Your task to perform on an android device: turn notification dots on Image 0: 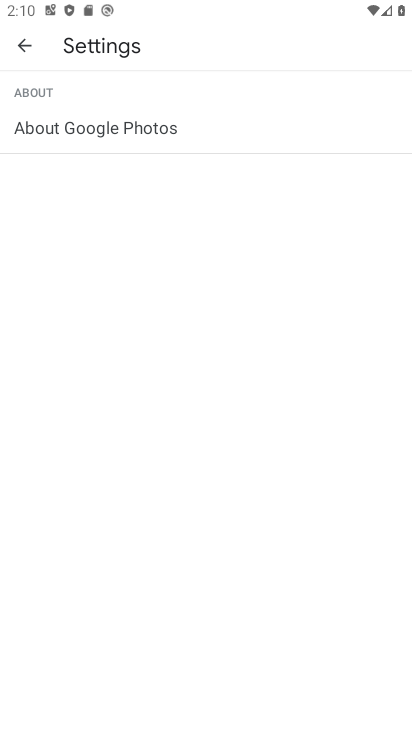
Step 0: press home button
Your task to perform on an android device: turn notification dots on Image 1: 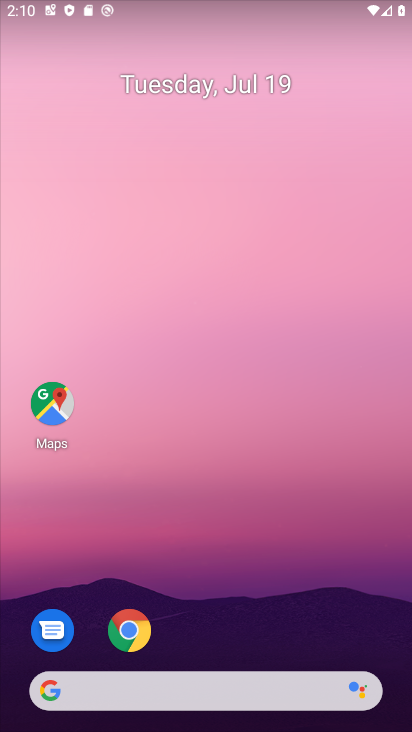
Step 1: drag from (386, 643) to (325, 34)
Your task to perform on an android device: turn notification dots on Image 2: 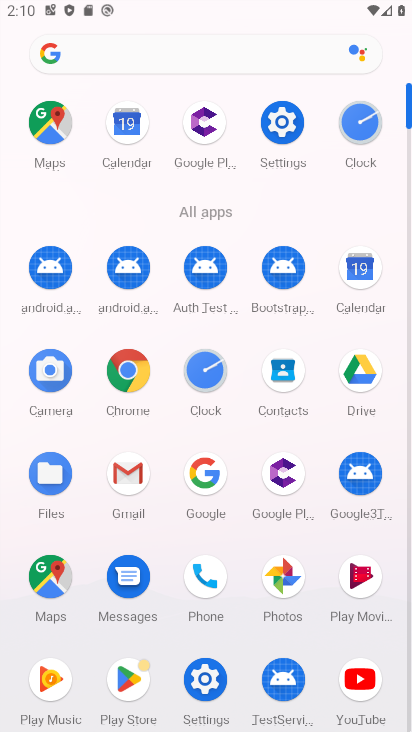
Step 2: click (205, 680)
Your task to perform on an android device: turn notification dots on Image 3: 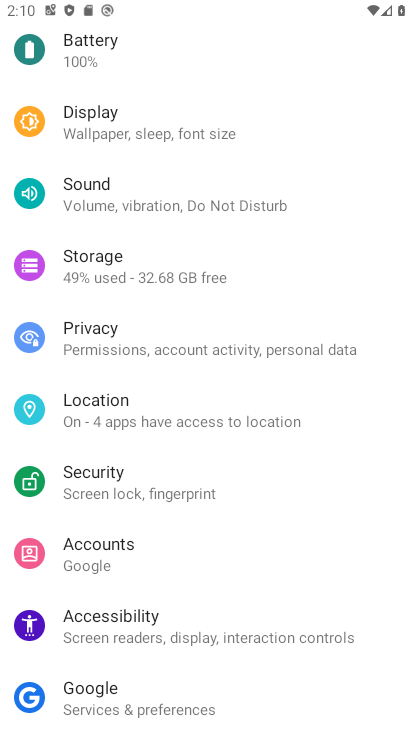
Step 3: drag from (212, 192) to (215, 551)
Your task to perform on an android device: turn notification dots on Image 4: 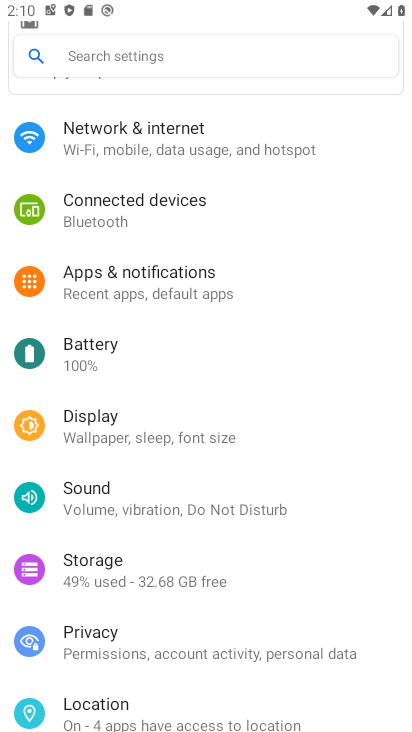
Step 4: click (117, 280)
Your task to perform on an android device: turn notification dots on Image 5: 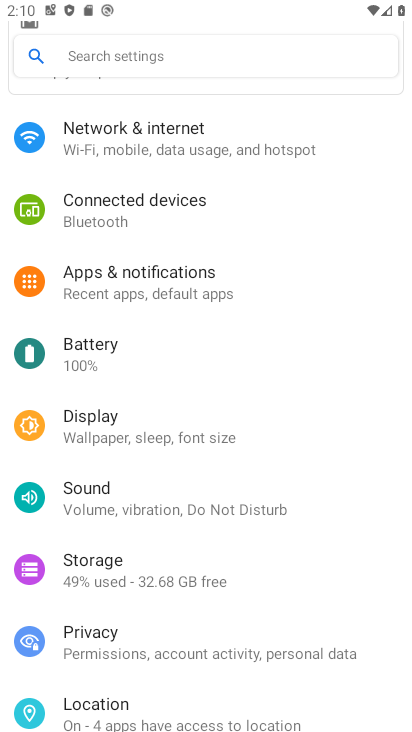
Step 5: click (117, 280)
Your task to perform on an android device: turn notification dots on Image 6: 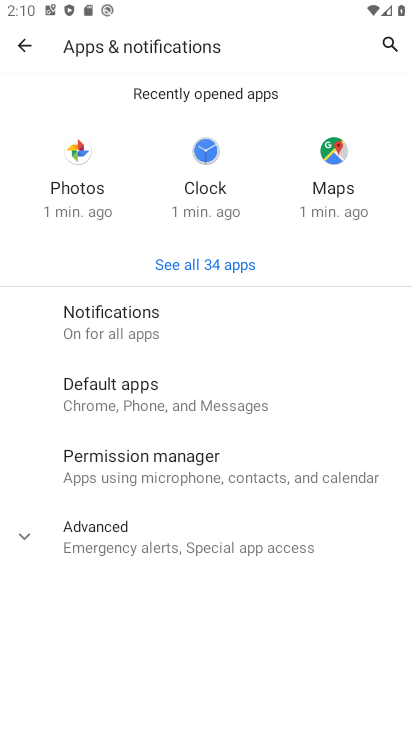
Step 6: click (92, 319)
Your task to perform on an android device: turn notification dots on Image 7: 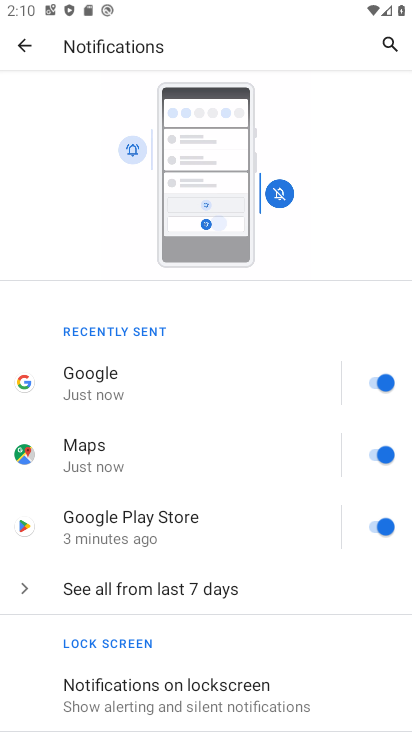
Step 7: drag from (242, 634) to (268, 97)
Your task to perform on an android device: turn notification dots on Image 8: 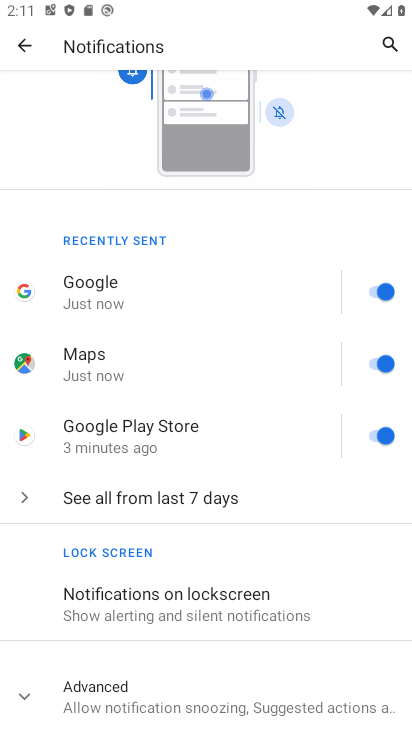
Step 8: click (24, 696)
Your task to perform on an android device: turn notification dots on Image 9: 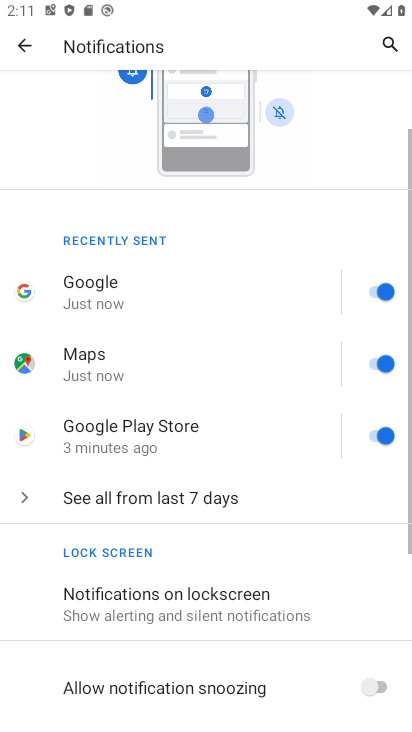
Step 9: task complete